Your task to perform on an android device: Is it going to rain tomorrow? Image 0: 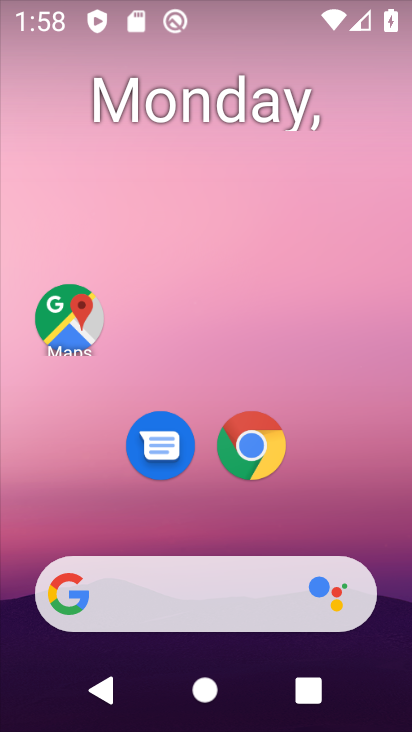
Step 0: drag from (347, 467) to (279, 22)
Your task to perform on an android device: Is it going to rain tomorrow? Image 1: 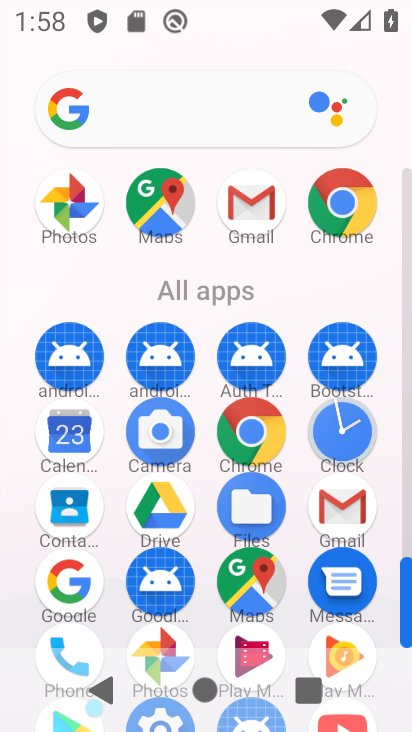
Step 1: drag from (16, 603) to (13, 190)
Your task to perform on an android device: Is it going to rain tomorrow? Image 2: 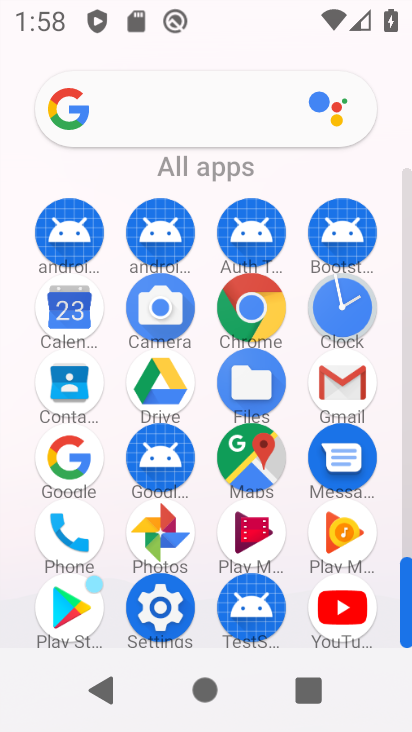
Step 2: drag from (25, 599) to (21, 205)
Your task to perform on an android device: Is it going to rain tomorrow? Image 3: 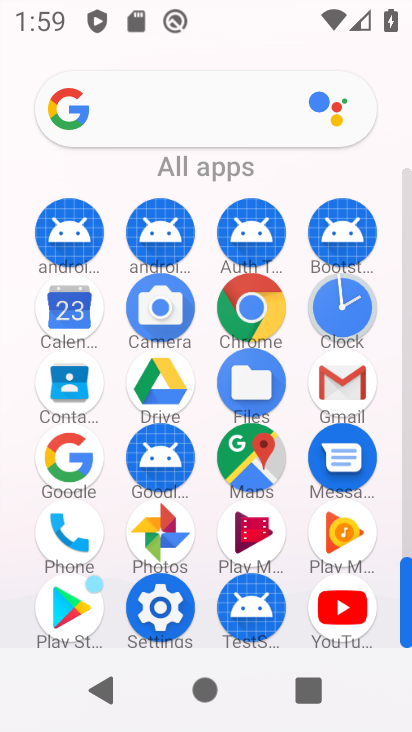
Step 3: click (246, 298)
Your task to perform on an android device: Is it going to rain tomorrow? Image 4: 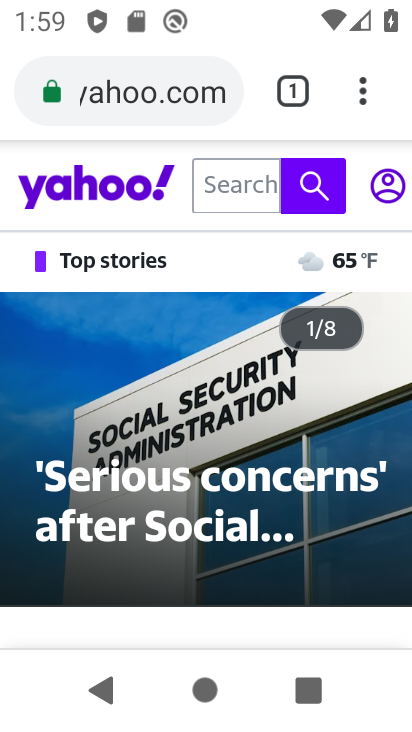
Step 4: click (116, 87)
Your task to perform on an android device: Is it going to rain tomorrow? Image 5: 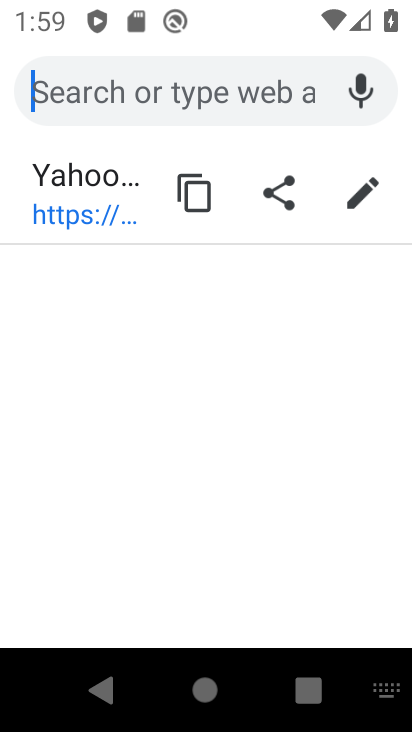
Step 5: type "Is it going to rain tomorrow?"
Your task to perform on an android device: Is it going to rain tomorrow? Image 6: 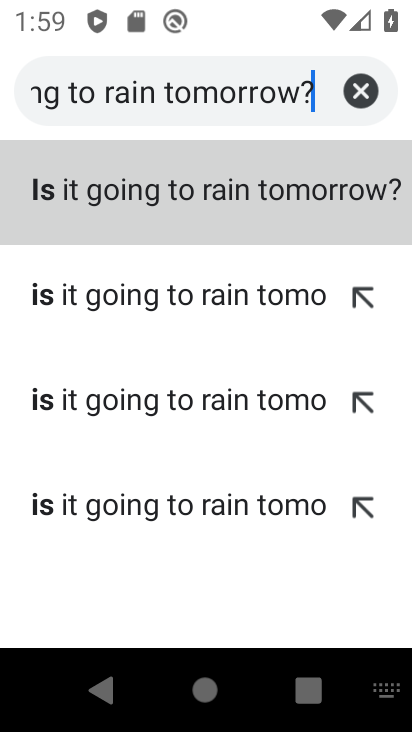
Step 6: type ""
Your task to perform on an android device: Is it going to rain tomorrow? Image 7: 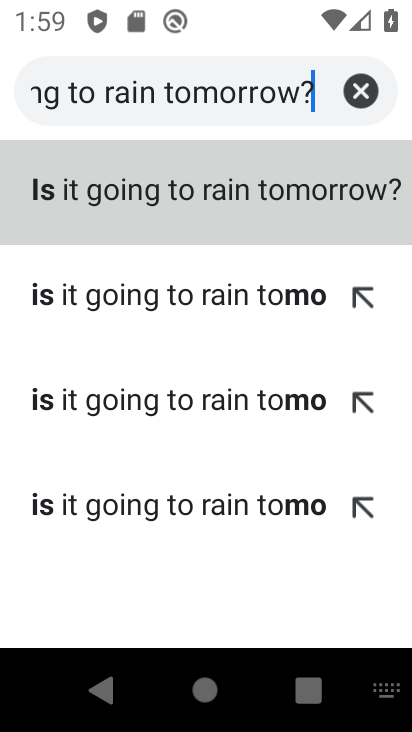
Step 7: click (254, 191)
Your task to perform on an android device: Is it going to rain tomorrow? Image 8: 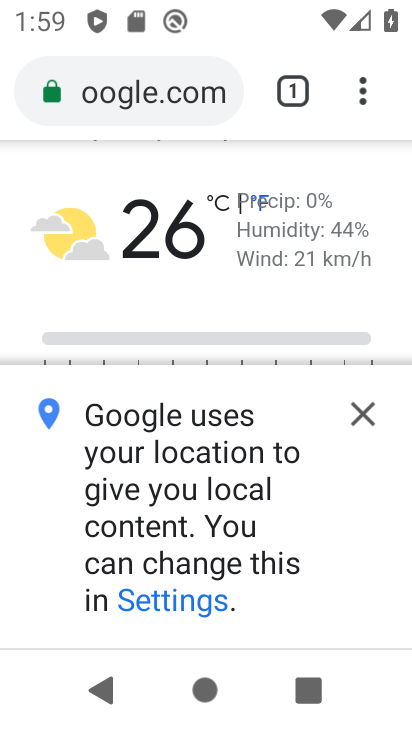
Step 8: click (361, 416)
Your task to perform on an android device: Is it going to rain tomorrow? Image 9: 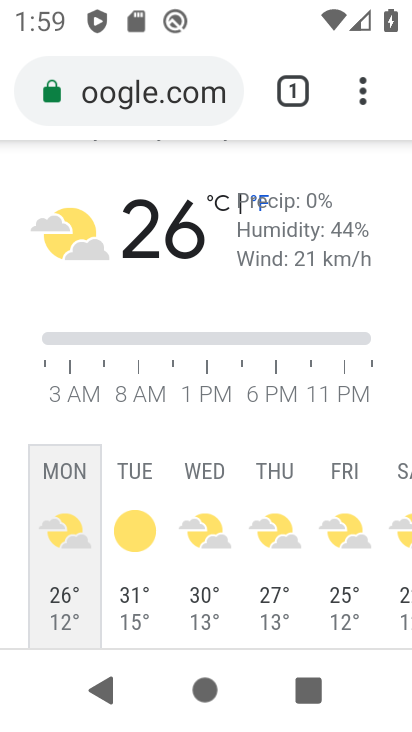
Step 9: task complete